Your task to perform on an android device: open app "Google Chrome" (install if not already installed) Image 0: 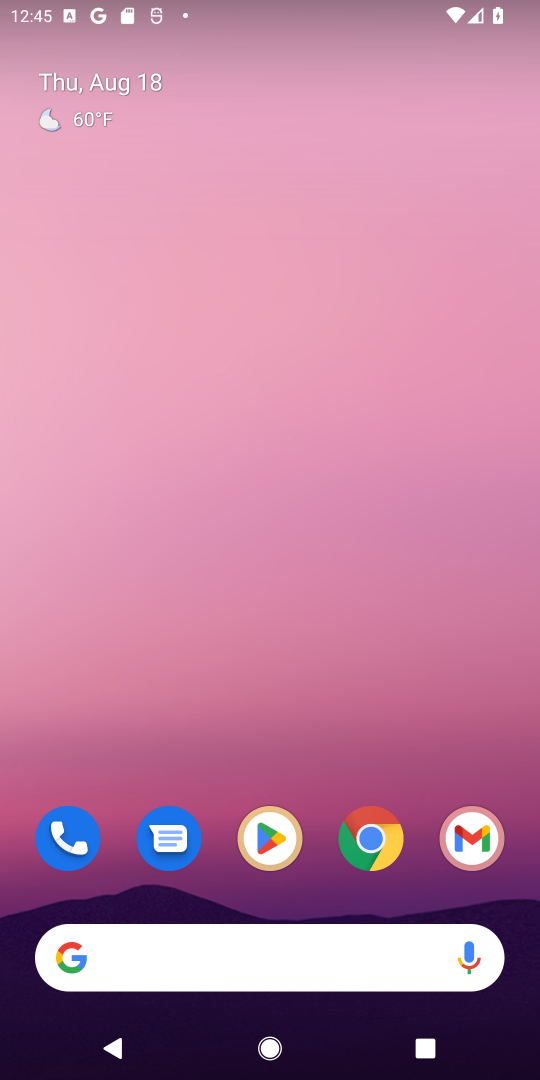
Step 0: click (280, 843)
Your task to perform on an android device: open app "Google Chrome" (install if not already installed) Image 1: 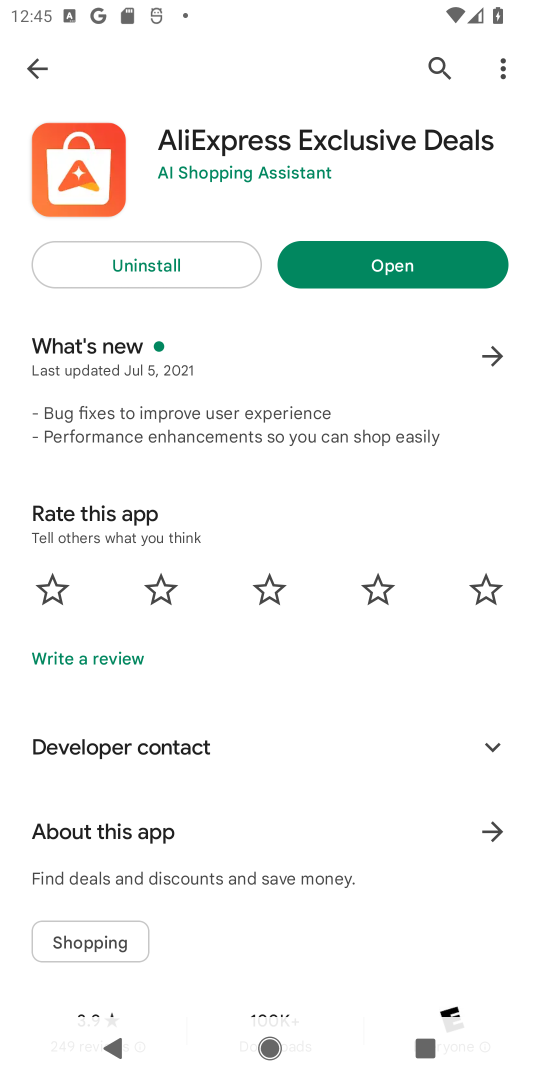
Step 1: click (439, 71)
Your task to perform on an android device: open app "Google Chrome" (install if not already installed) Image 2: 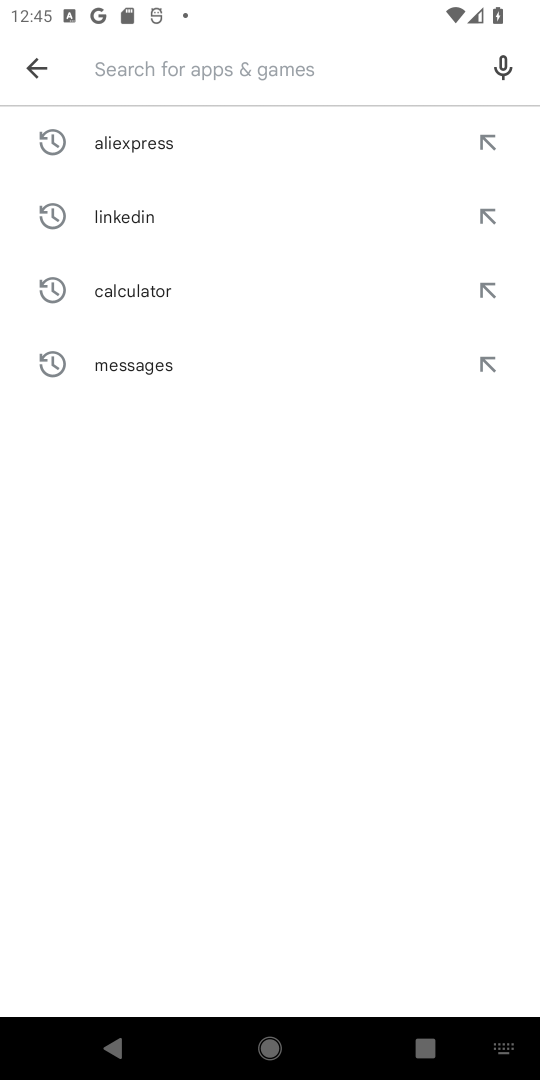
Step 2: type "Google Chrome"
Your task to perform on an android device: open app "Google Chrome" (install if not already installed) Image 3: 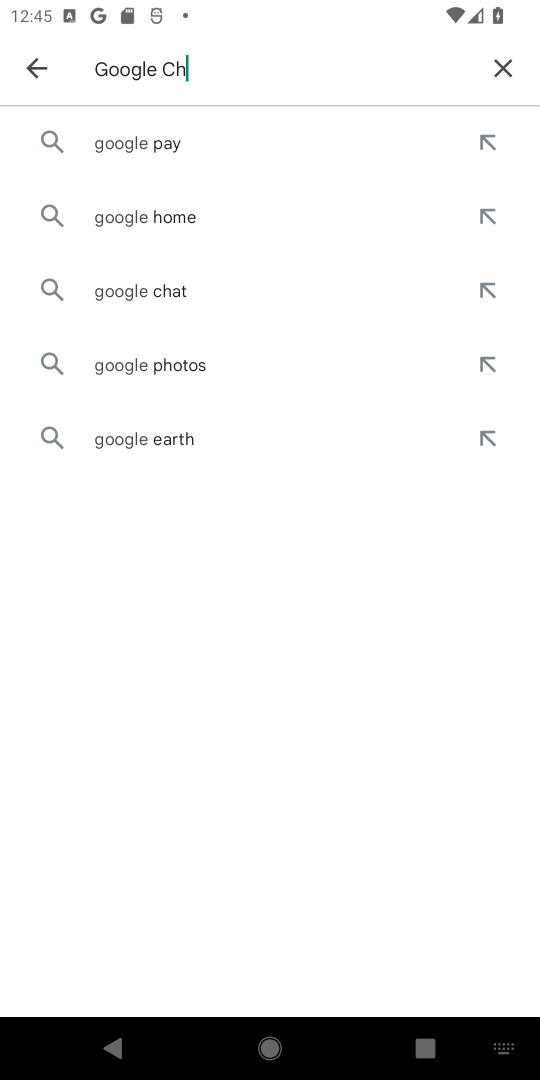
Step 3: type ""
Your task to perform on an android device: open app "Google Chrome" (install if not already installed) Image 4: 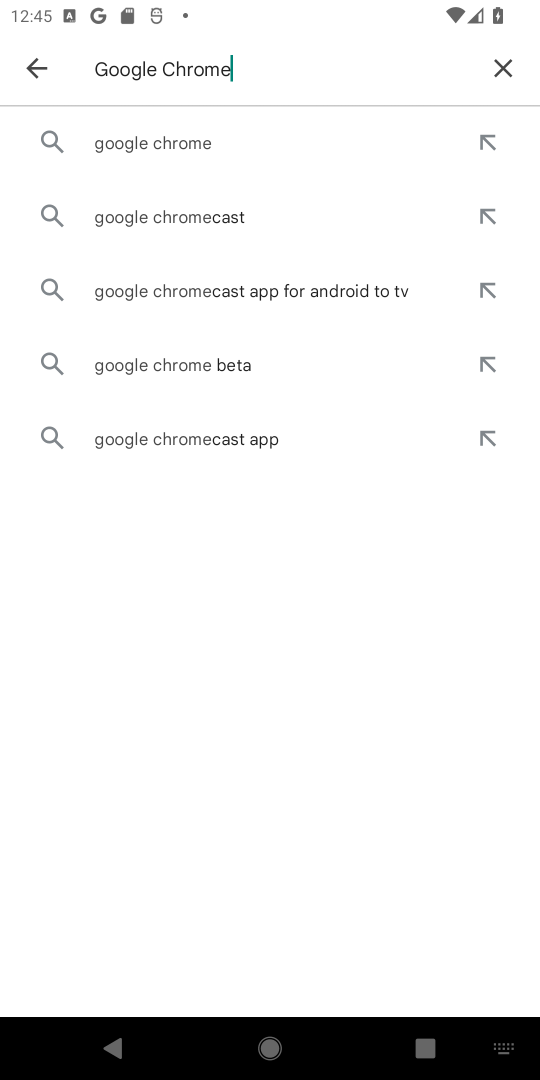
Step 4: click (210, 146)
Your task to perform on an android device: open app "Google Chrome" (install if not already installed) Image 5: 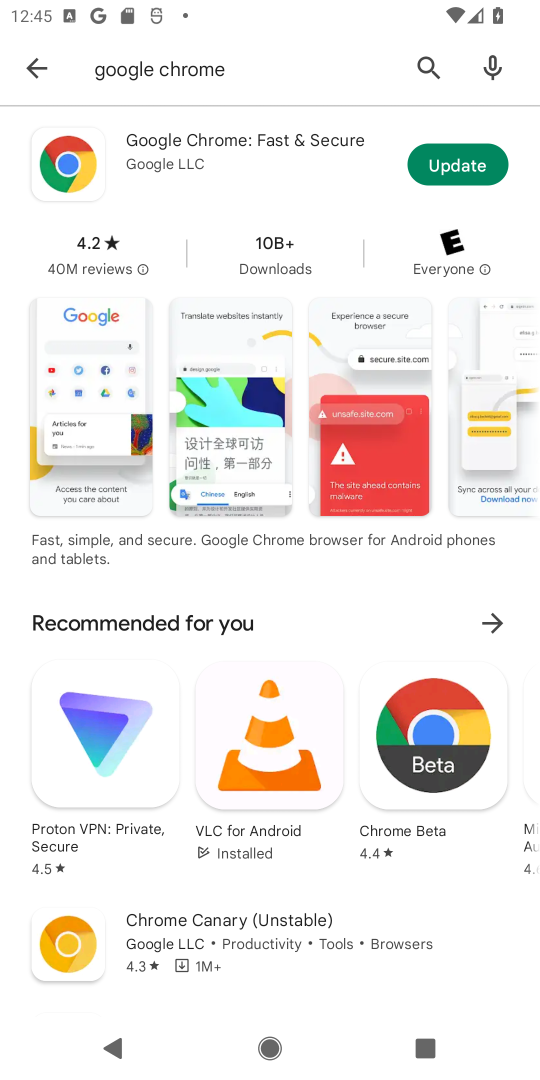
Step 5: click (264, 140)
Your task to perform on an android device: open app "Google Chrome" (install if not already installed) Image 6: 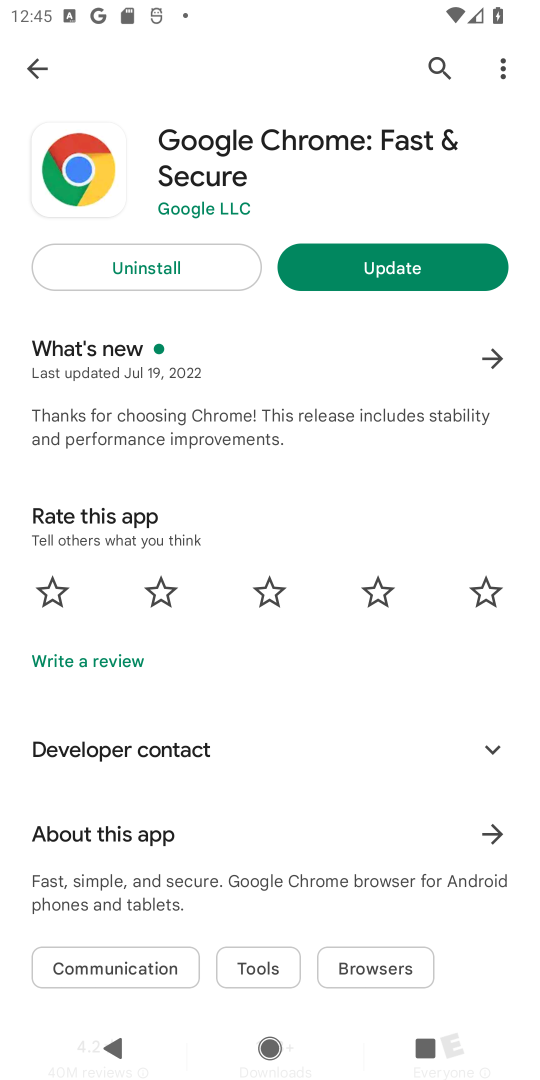
Step 6: click (379, 274)
Your task to perform on an android device: open app "Google Chrome" (install if not already installed) Image 7: 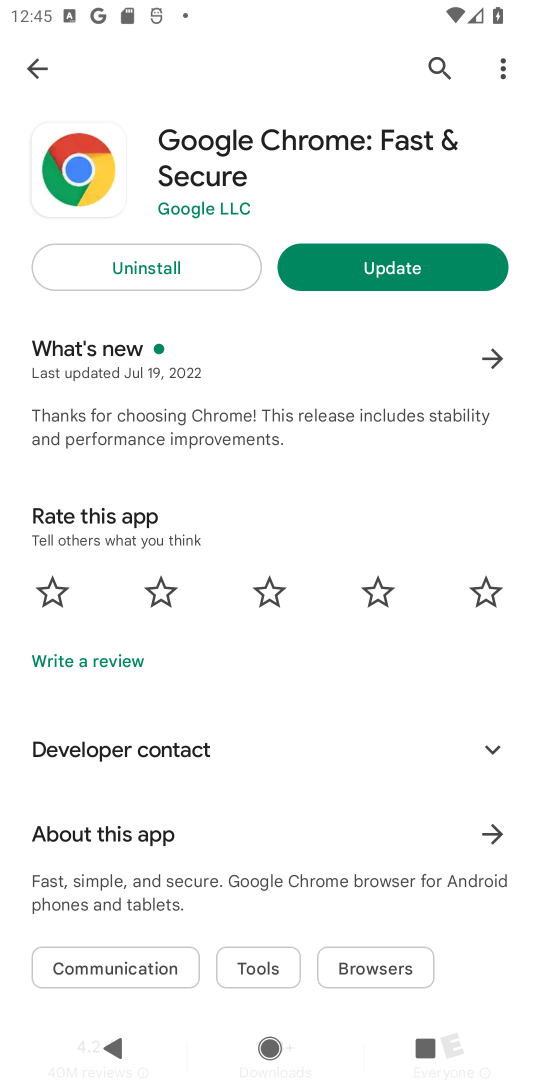
Step 7: click (409, 275)
Your task to perform on an android device: open app "Google Chrome" (install if not already installed) Image 8: 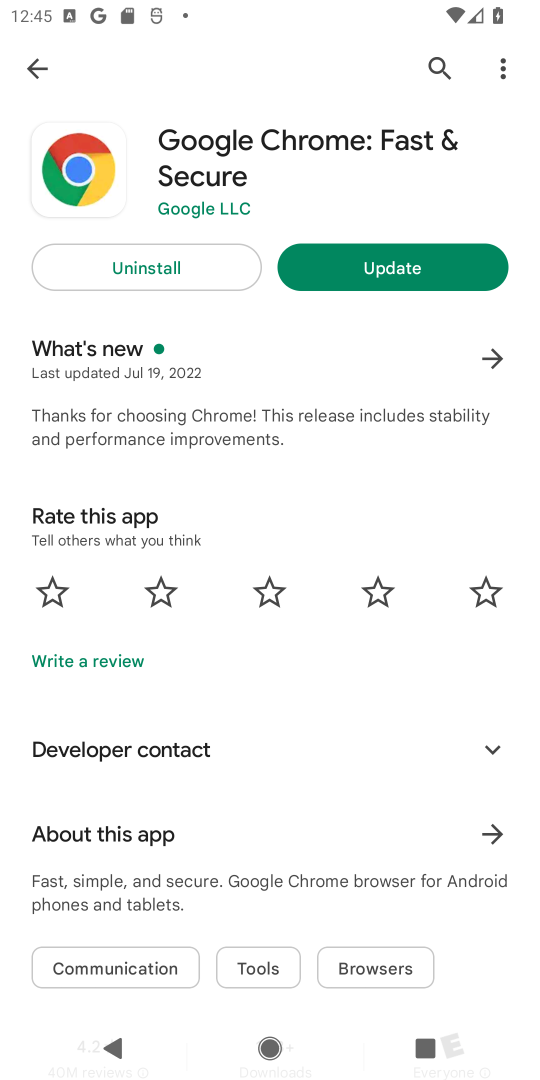
Step 8: click (390, 274)
Your task to perform on an android device: open app "Google Chrome" (install if not already installed) Image 9: 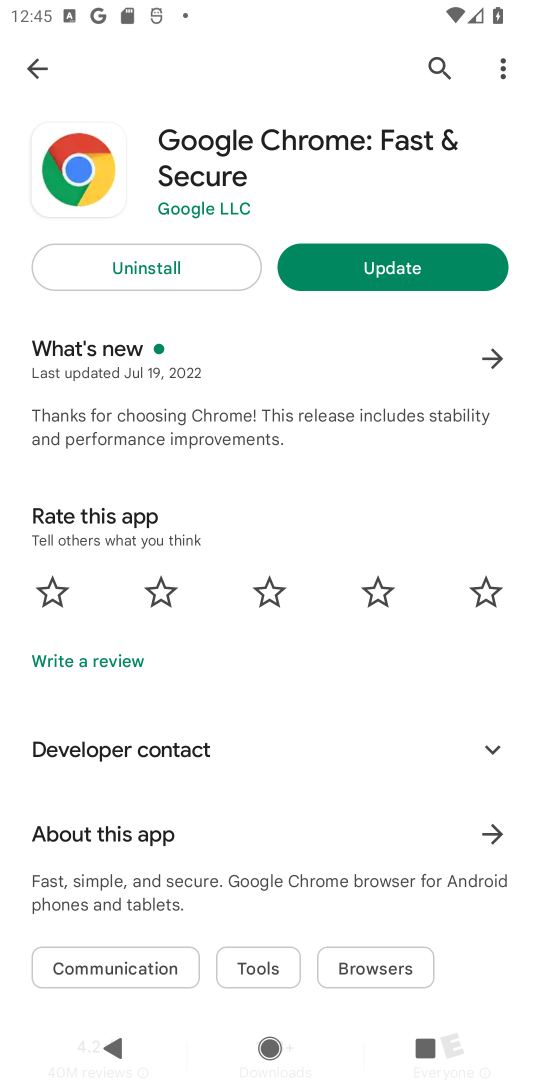
Step 9: click (390, 274)
Your task to perform on an android device: open app "Google Chrome" (install if not already installed) Image 10: 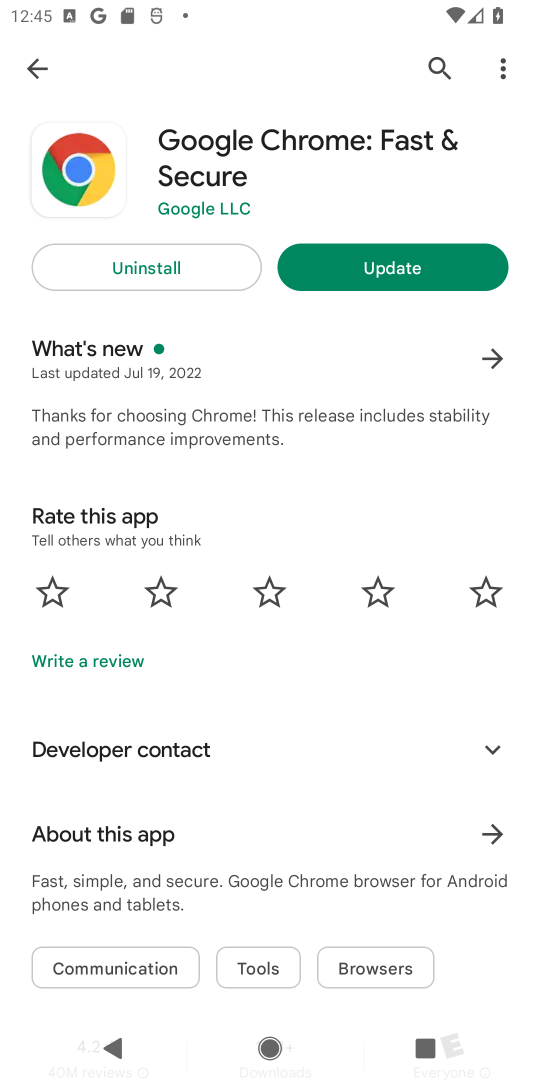
Step 10: task complete